Your task to perform on an android device: Open wifi settings Image 0: 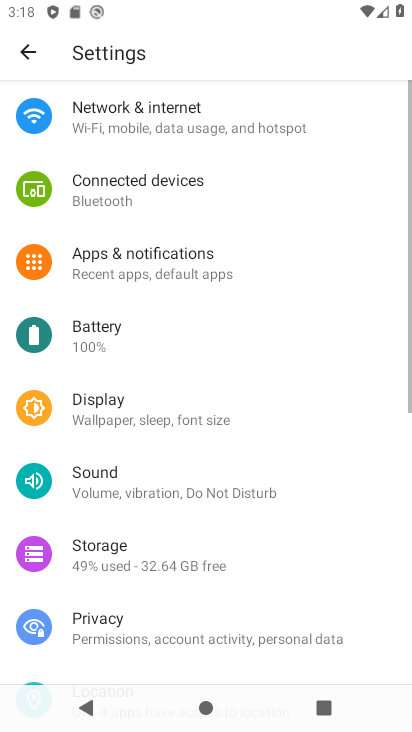
Step 0: click (121, 120)
Your task to perform on an android device: Open wifi settings Image 1: 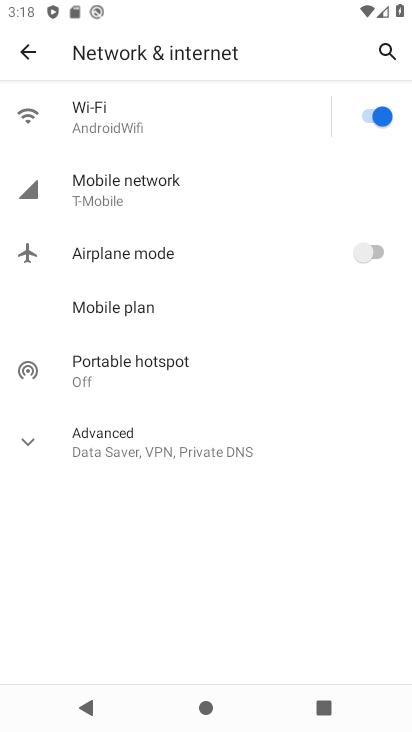
Step 1: click (121, 120)
Your task to perform on an android device: Open wifi settings Image 2: 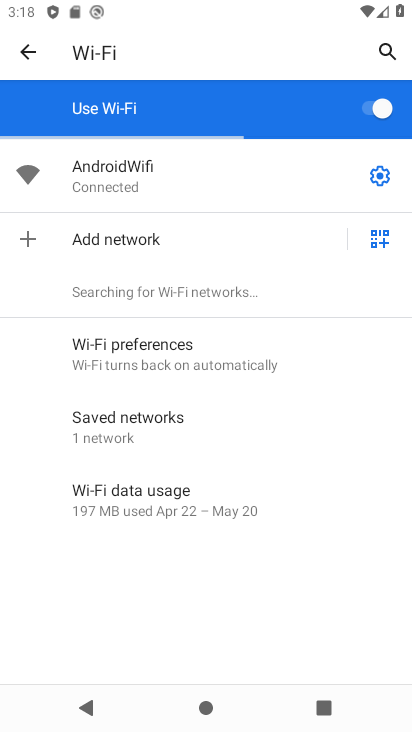
Step 2: task complete